Your task to perform on an android device: Open ESPN.com Image 0: 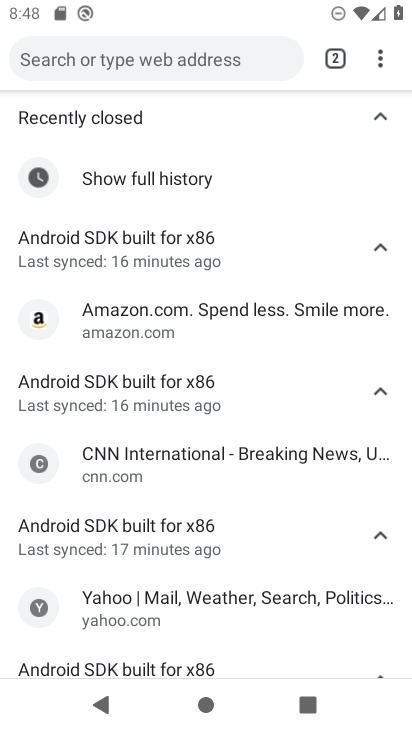
Step 0: press home button
Your task to perform on an android device: Open ESPN.com Image 1: 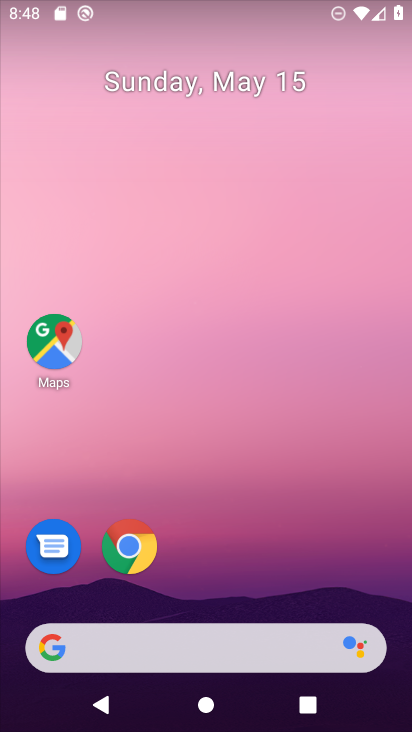
Step 1: click (248, 644)
Your task to perform on an android device: Open ESPN.com Image 2: 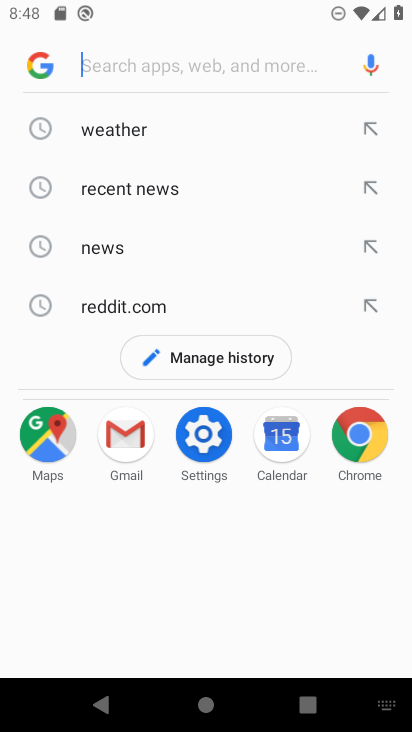
Step 2: type "espn.com"
Your task to perform on an android device: Open ESPN.com Image 3: 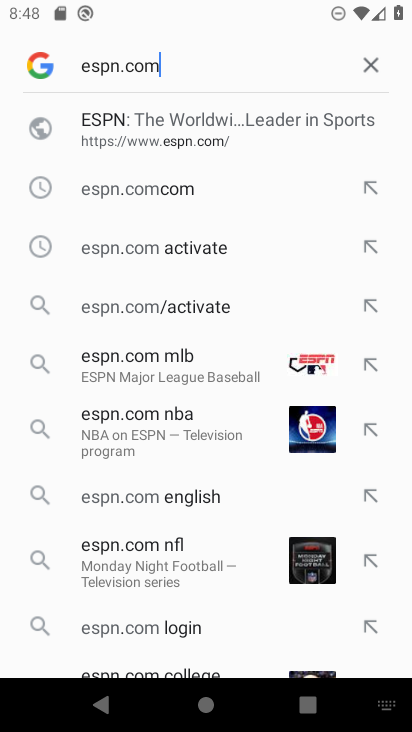
Step 3: click (90, 121)
Your task to perform on an android device: Open ESPN.com Image 4: 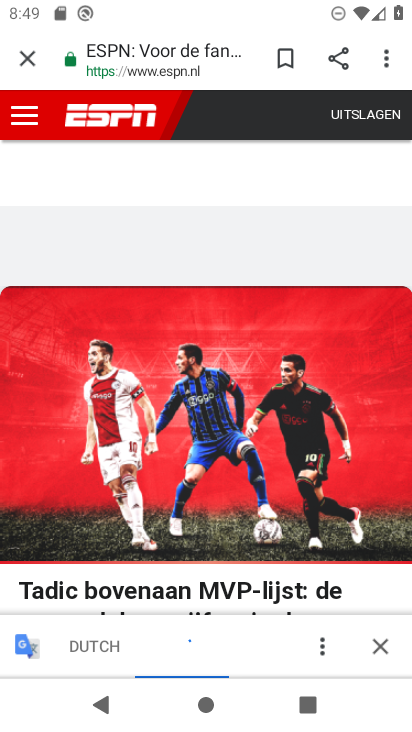
Step 4: task complete